Your task to perform on an android device: Go to Google maps Image 0: 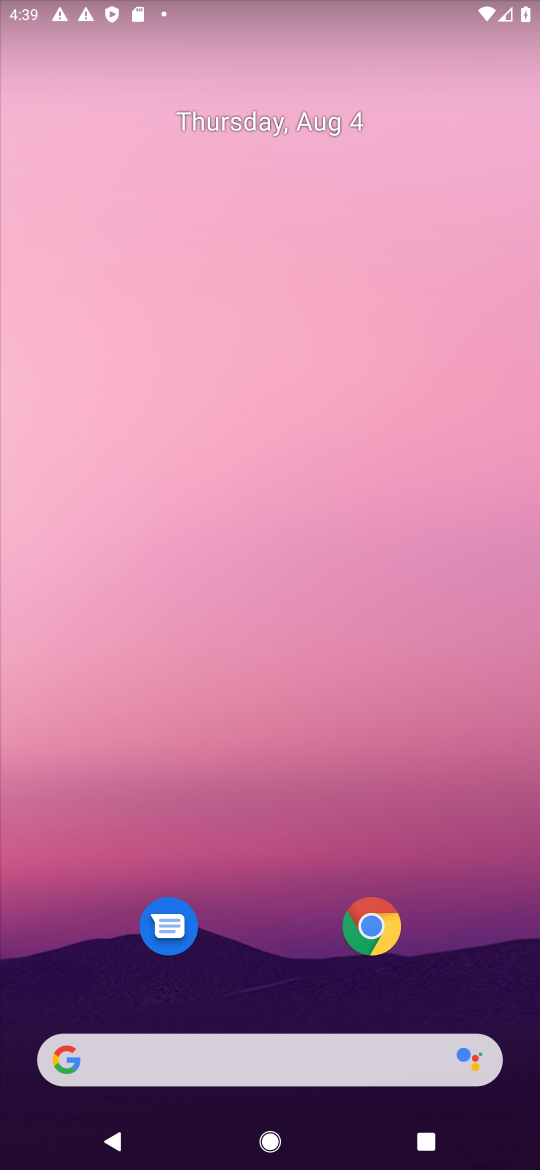
Step 0: press home button
Your task to perform on an android device: Go to Google maps Image 1: 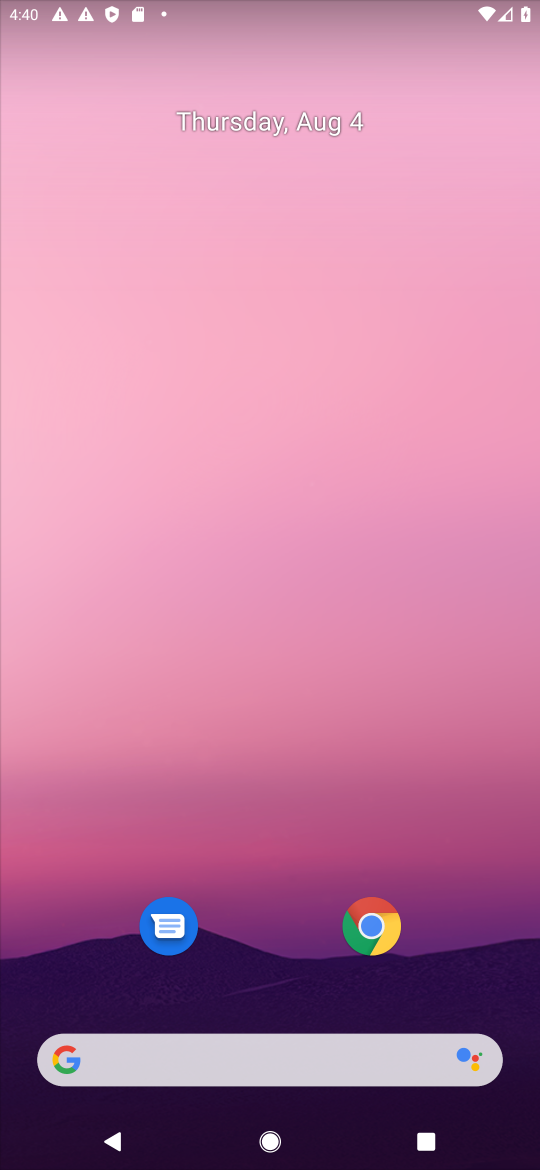
Step 1: drag from (304, 998) to (295, 400)
Your task to perform on an android device: Go to Google maps Image 2: 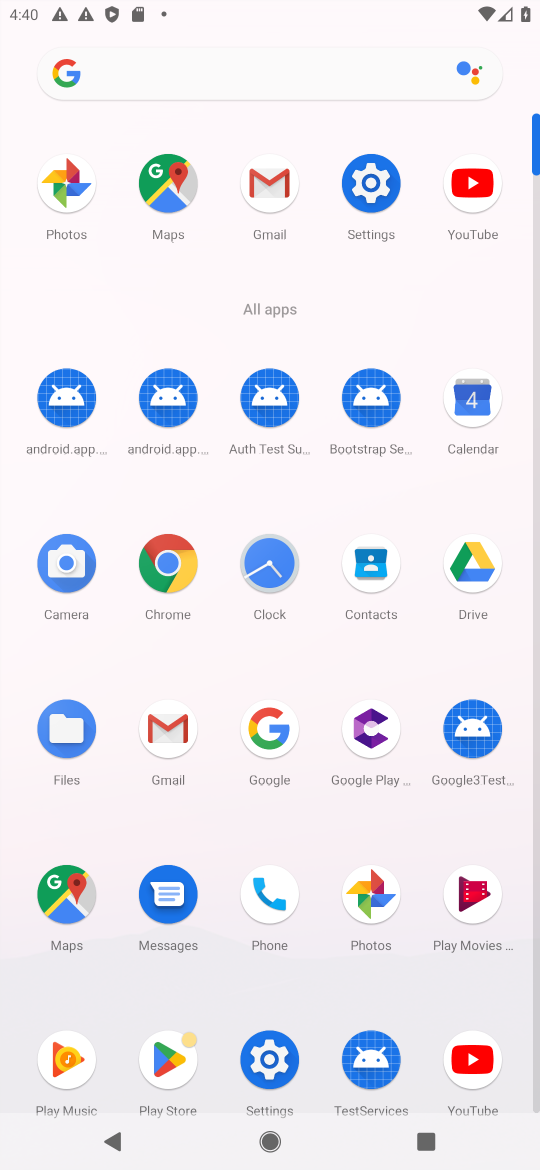
Step 2: click (170, 190)
Your task to perform on an android device: Go to Google maps Image 3: 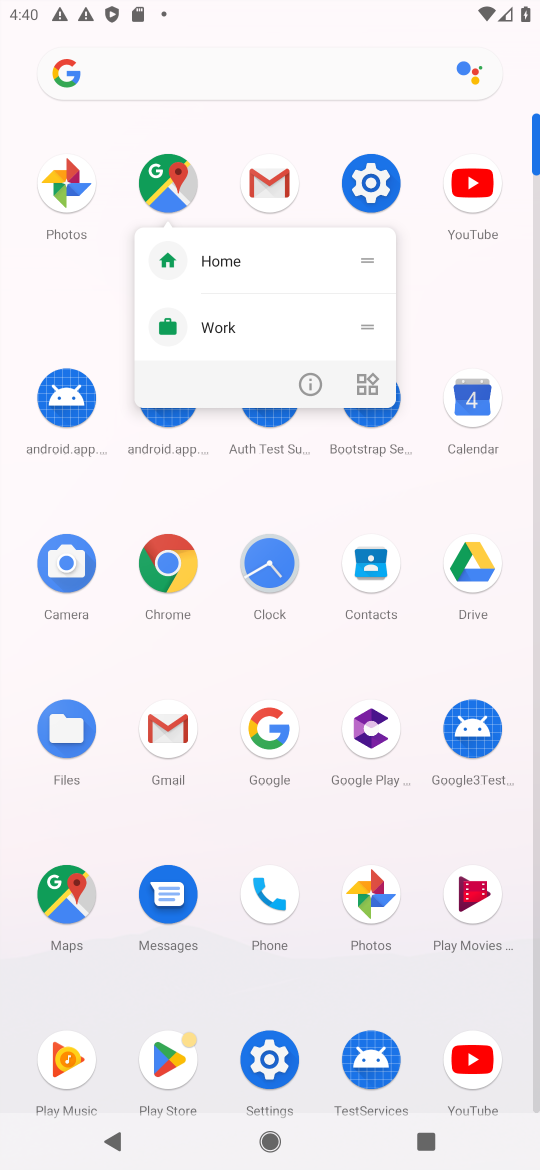
Step 3: click (66, 907)
Your task to perform on an android device: Go to Google maps Image 4: 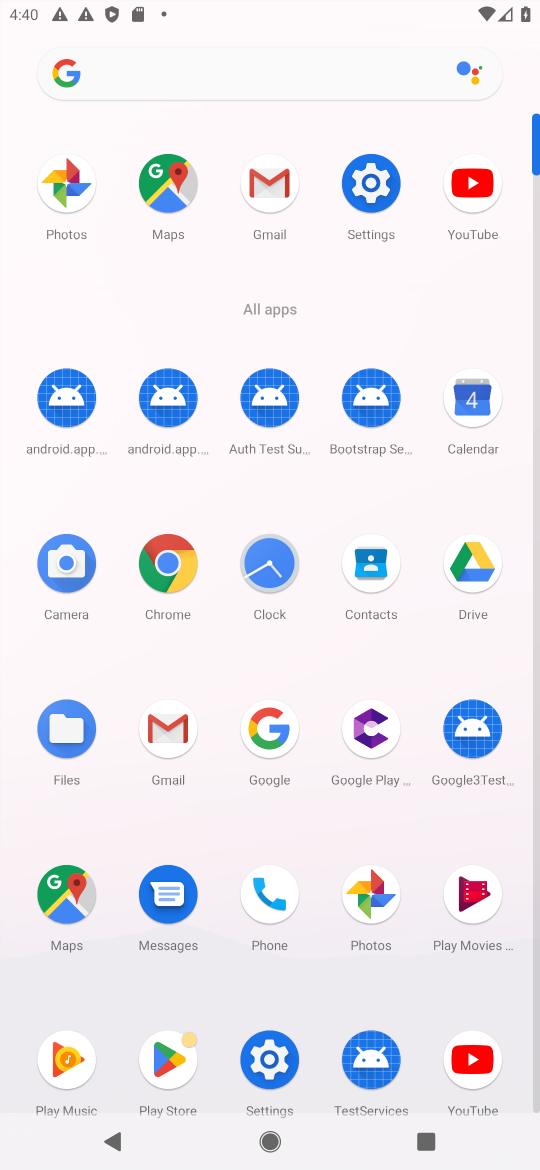
Step 4: click (151, 194)
Your task to perform on an android device: Go to Google maps Image 5: 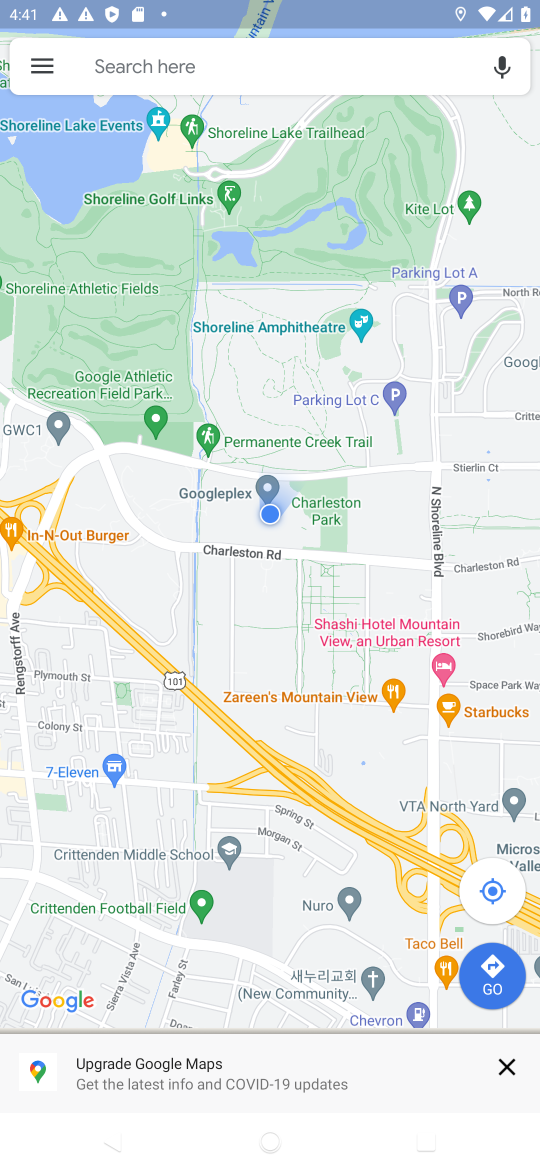
Step 5: task complete